Your task to perform on an android device: open a bookmark in the chrome app Image 0: 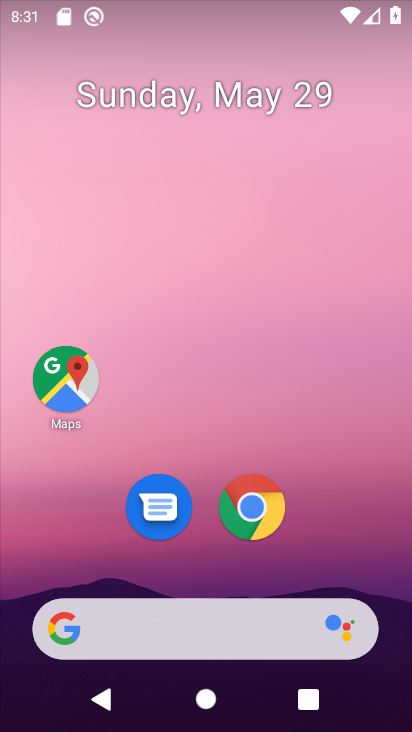
Step 0: click (249, 527)
Your task to perform on an android device: open a bookmark in the chrome app Image 1: 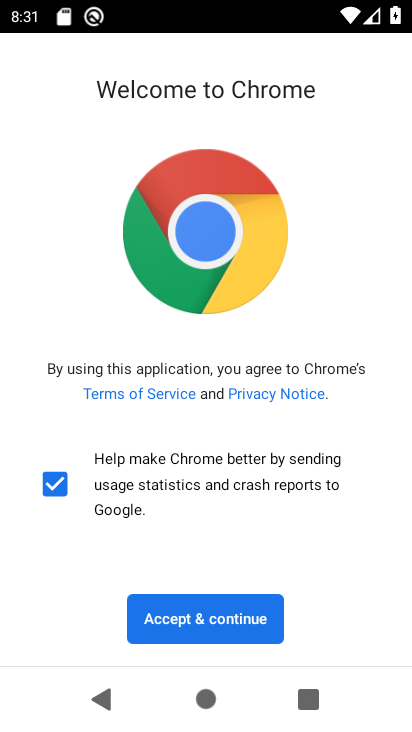
Step 1: click (253, 632)
Your task to perform on an android device: open a bookmark in the chrome app Image 2: 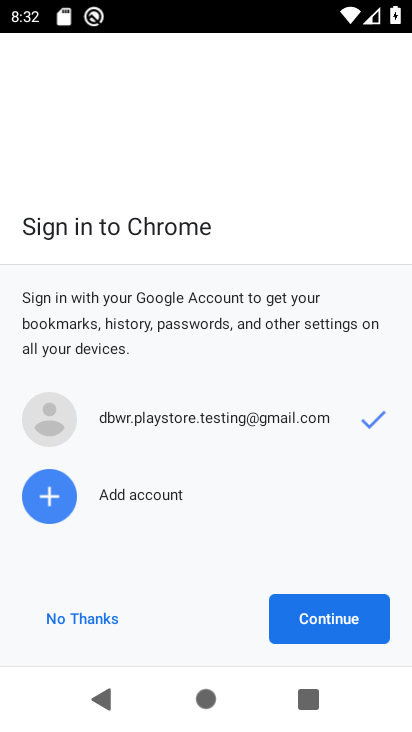
Step 2: click (337, 622)
Your task to perform on an android device: open a bookmark in the chrome app Image 3: 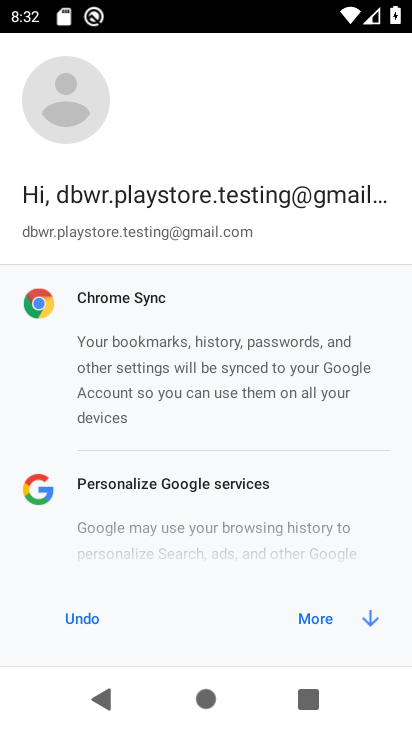
Step 3: click (337, 622)
Your task to perform on an android device: open a bookmark in the chrome app Image 4: 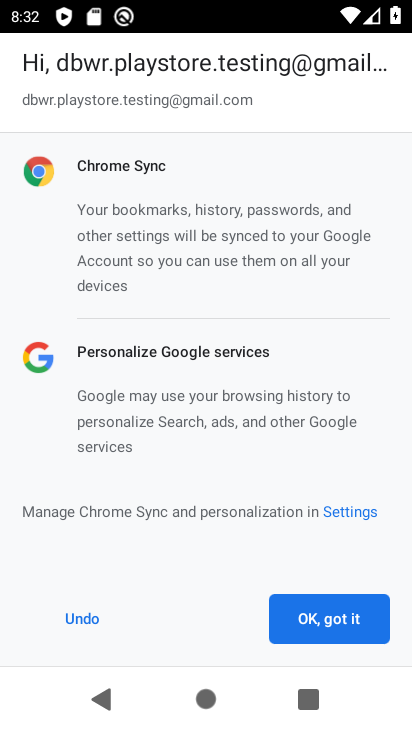
Step 4: click (337, 623)
Your task to perform on an android device: open a bookmark in the chrome app Image 5: 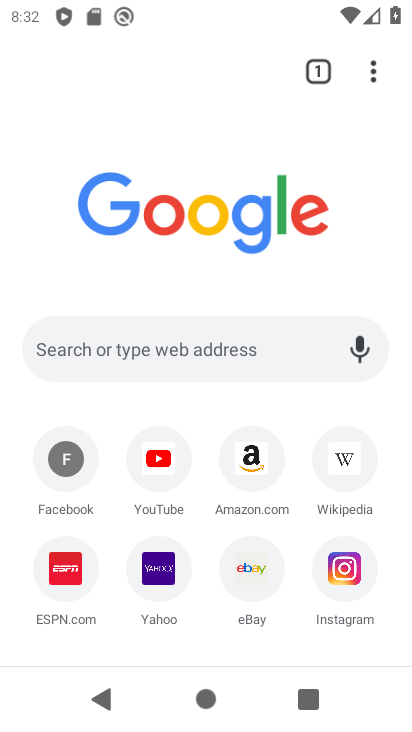
Step 5: task complete